Your task to perform on an android device: What's the news in Sri Lanka? Image 0: 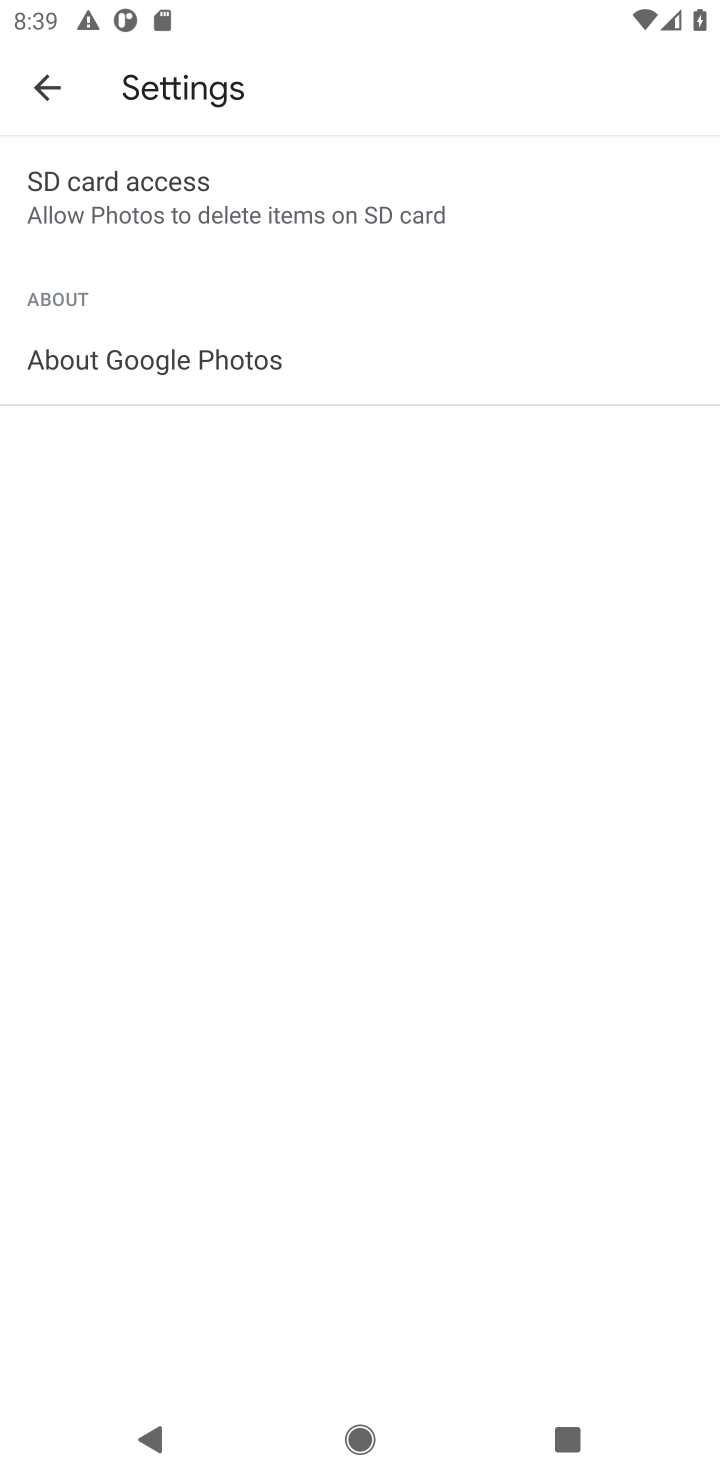
Step 0: press home button
Your task to perform on an android device: What's the news in Sri Lanka? Image 1: 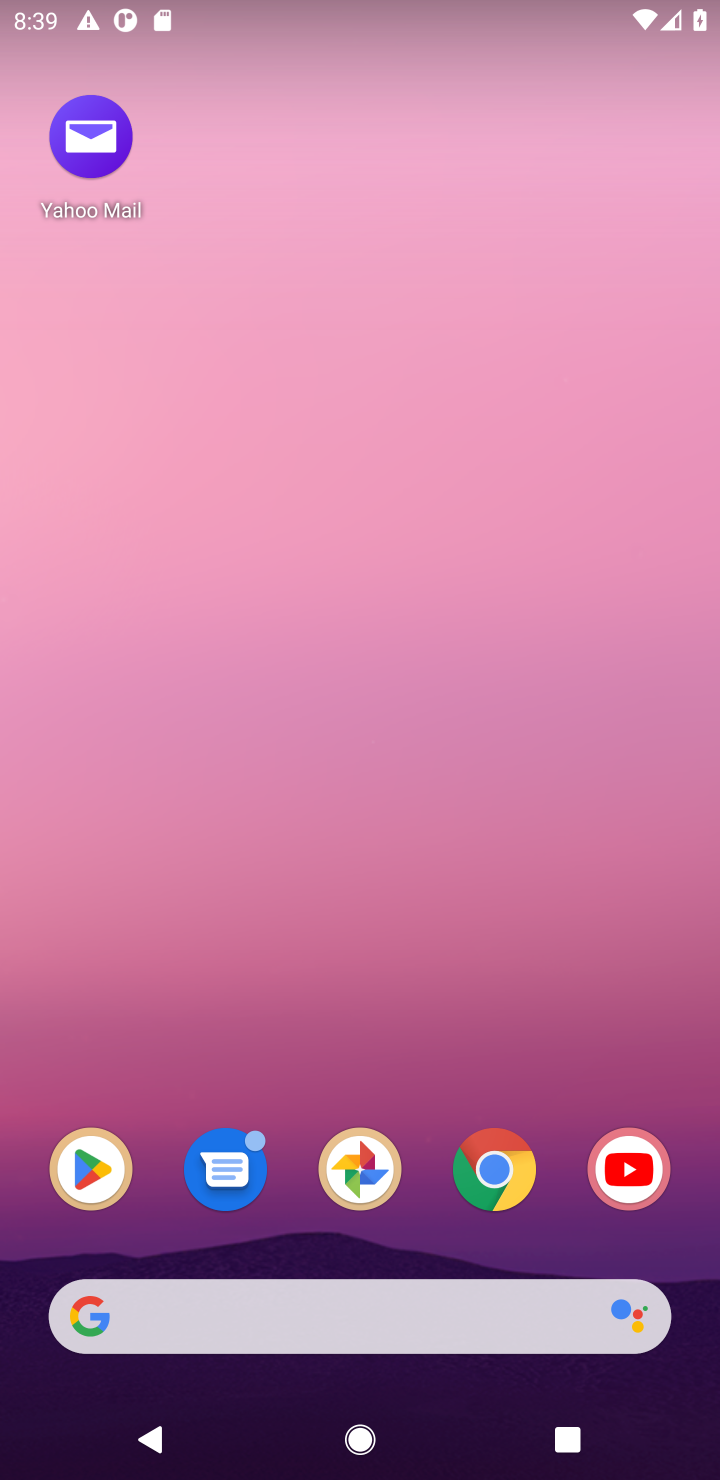
Step 1: click (235, 1335)
Your task to perform on an android device: What's the news in Sri Lanka? Image 2: 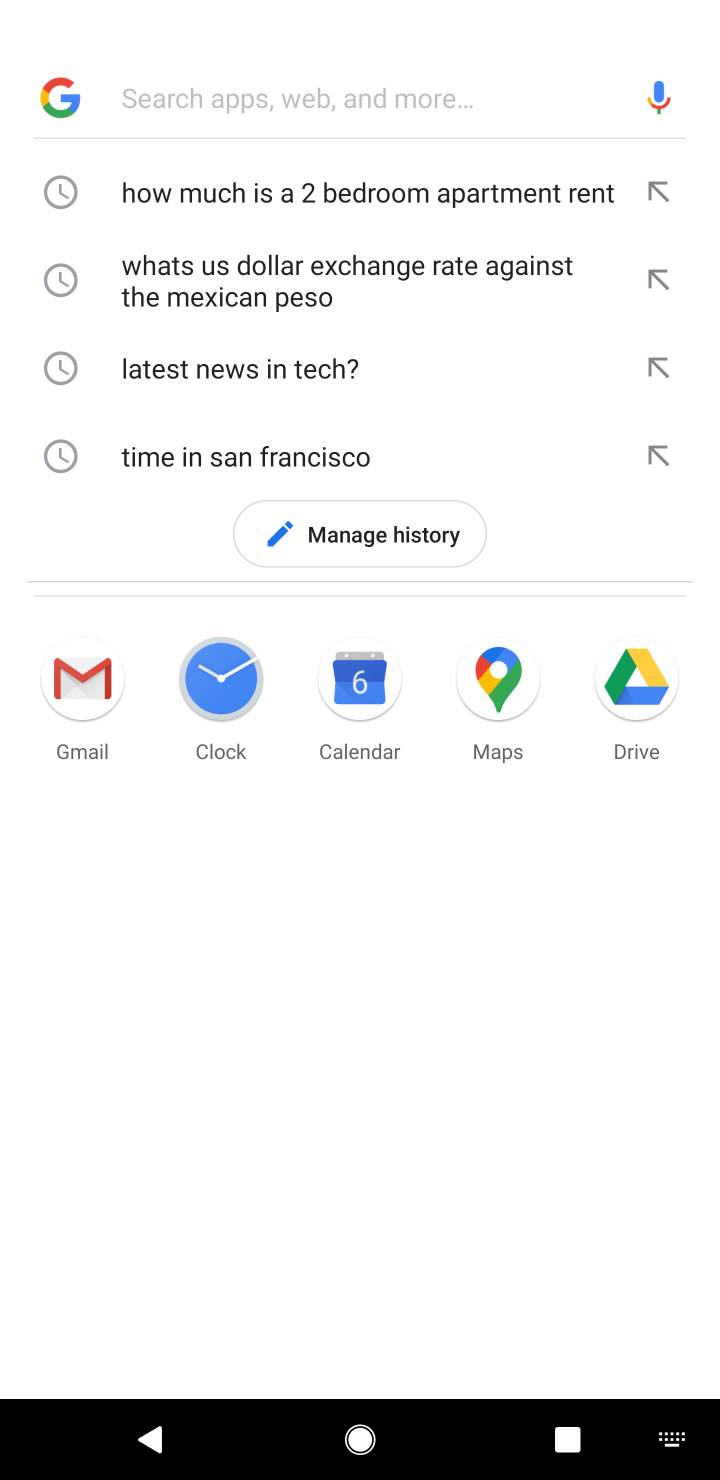
Step 2: click (182, 110)
Your task to perform on an android device: What's the news in Sri Lanka? Image 3: 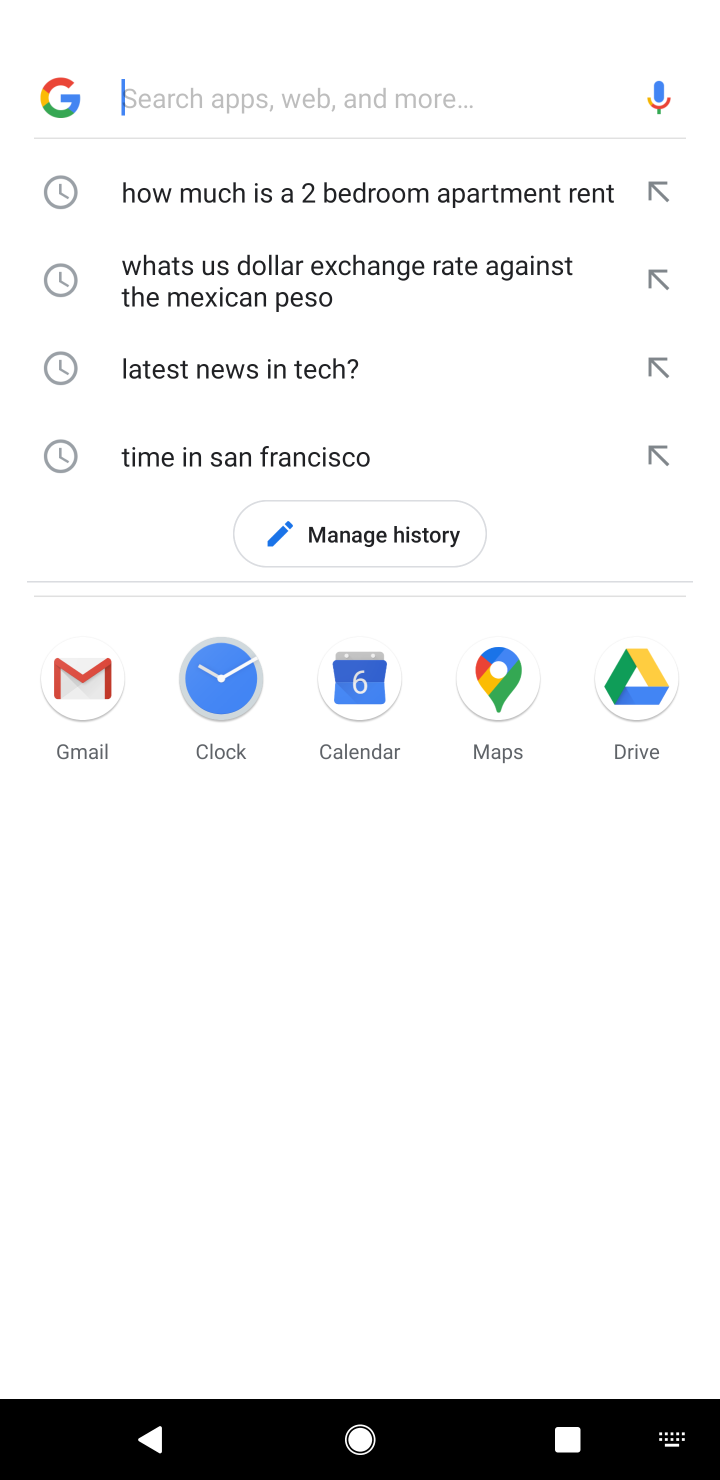
Step 3: type "What's the news in Sri Lanka"
Your task to perform on an android device: What's the news in Sri Lanka? Image 4: 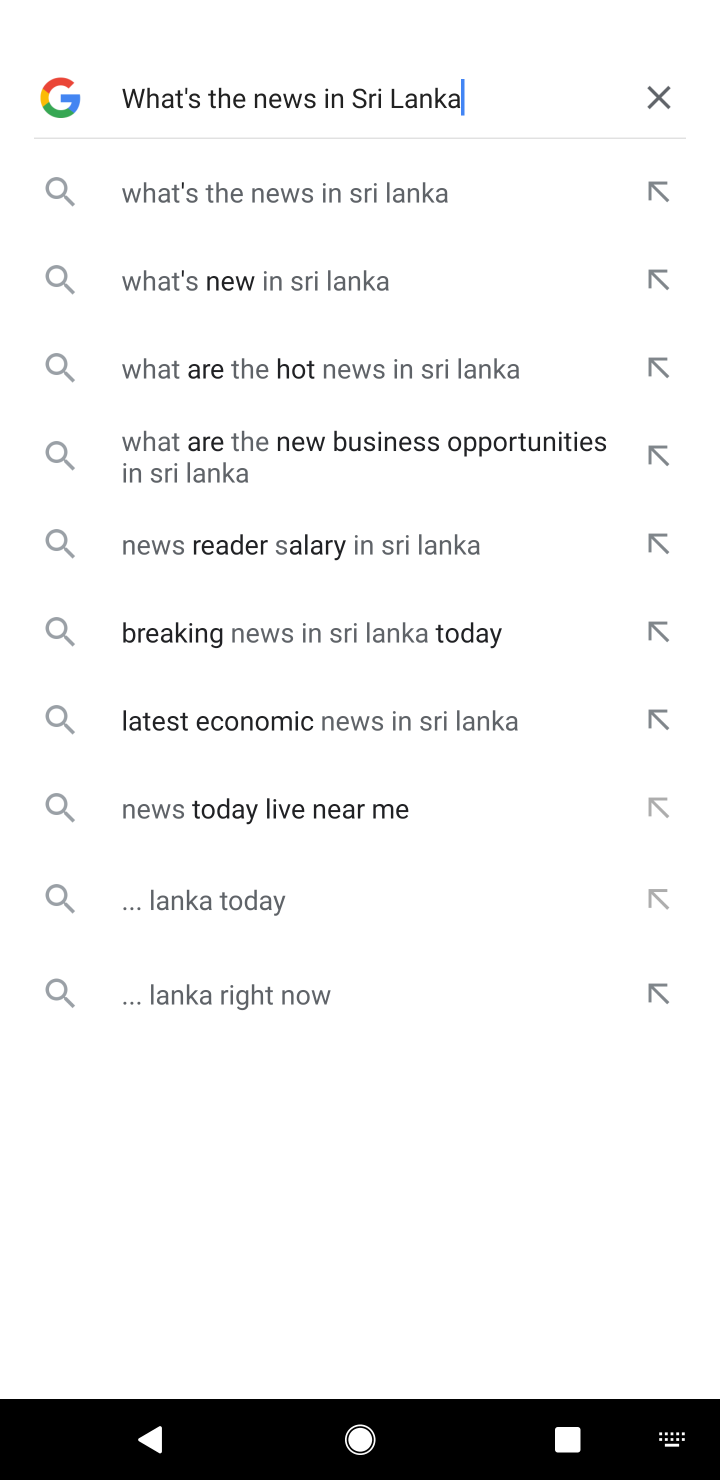
Step 4: click (262, 202)
Your task to perform on an android device: What's the news in Sri Lanka? Image 5: 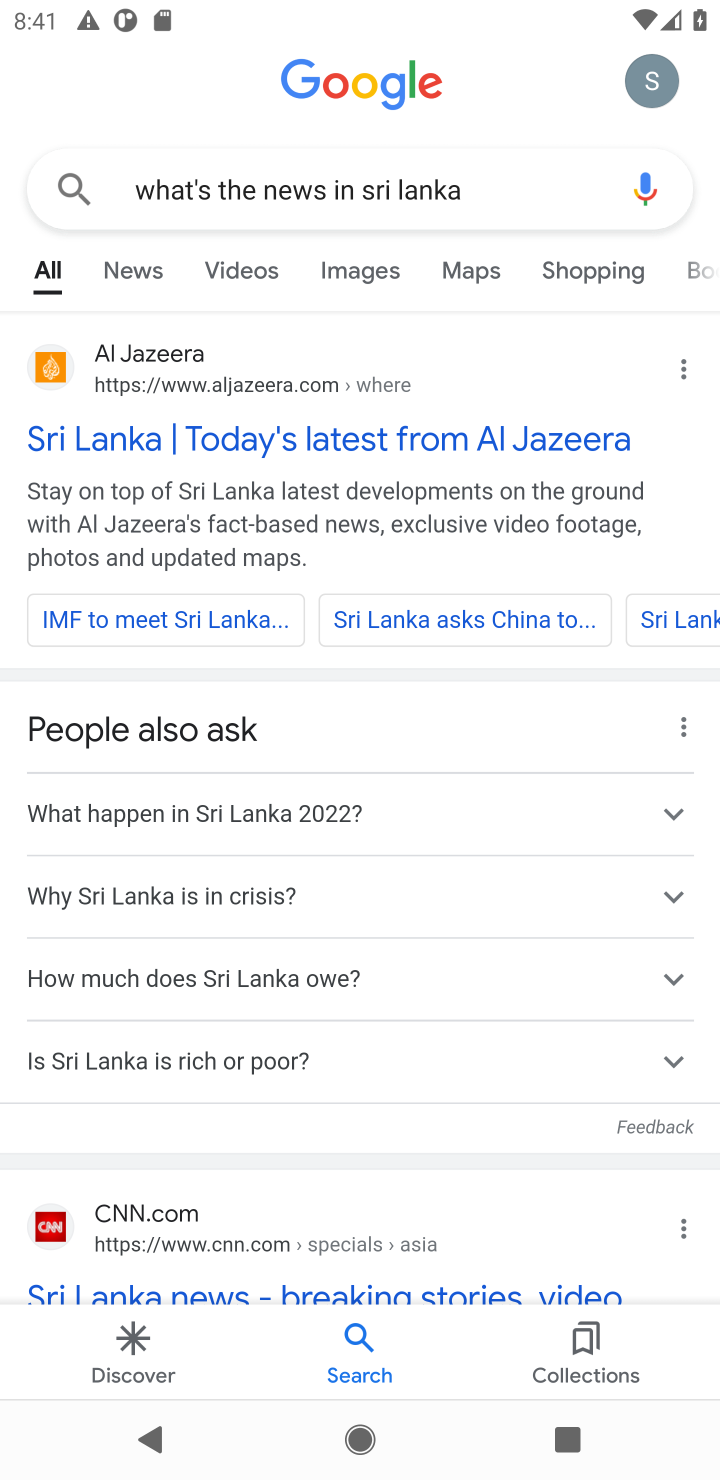
Step 5: task complete